Your task to perform on an android device: read, delete, or share a saved page in the chrome app Image 0: 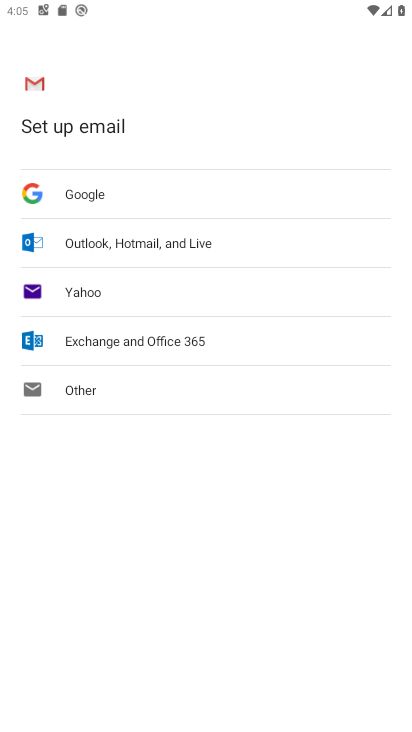
Step 0: press home button
Your task to perform on an android device: read, delete, or share a saved page in the chrome app Image 1: 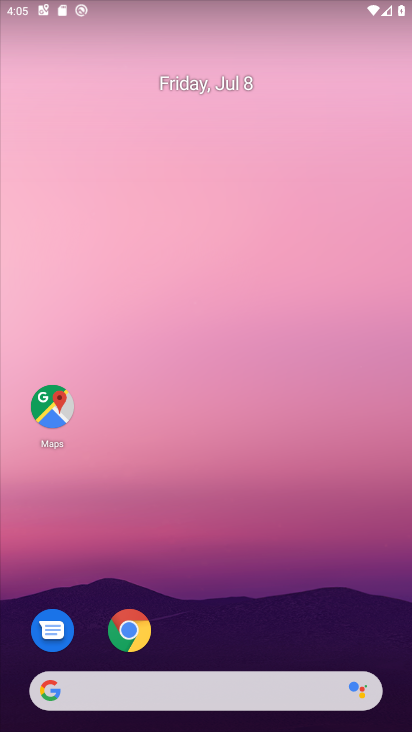
Step 1: drag from (298, 560) to (271, 13)
Your task to perform on an android device: read, delete, or share a saved page in the chrome app Image 2: 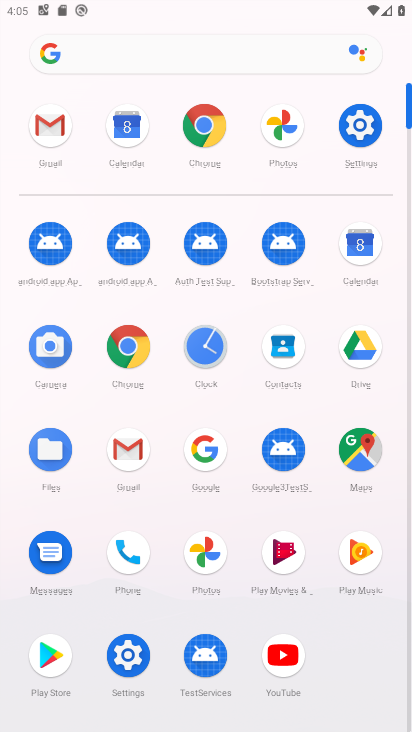
Step 2: click (204, 120)
Your task to perform on an android device: read, delete, or share a saved page in the chrome app Image 3: 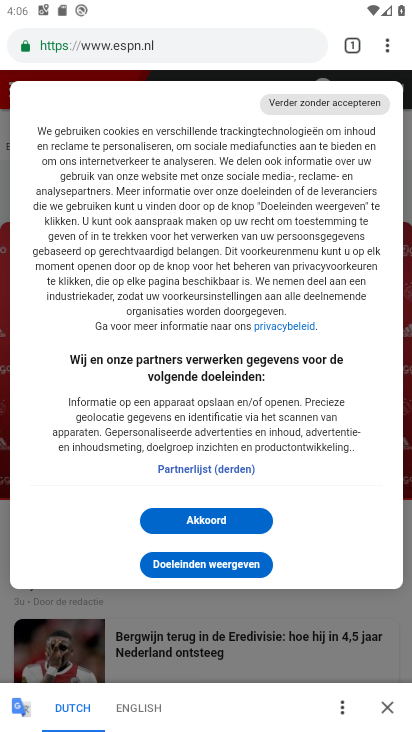
Step 3: task complete